Your task to perform on an android device: Open Wikipedia Image 0: 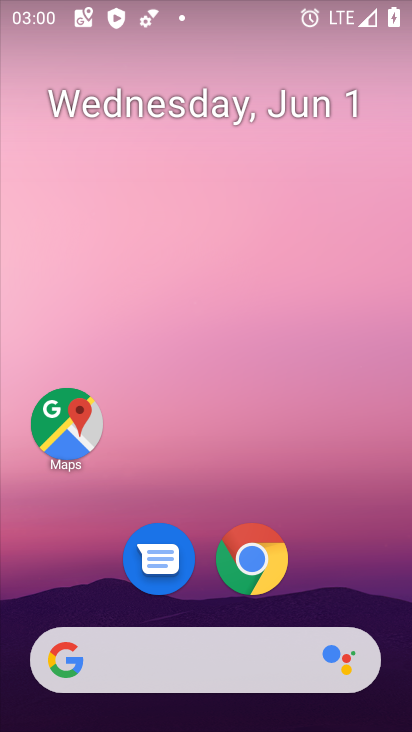
Step 0: press home button
Your task to perform on an android device: Open Wikipedia Image 1: 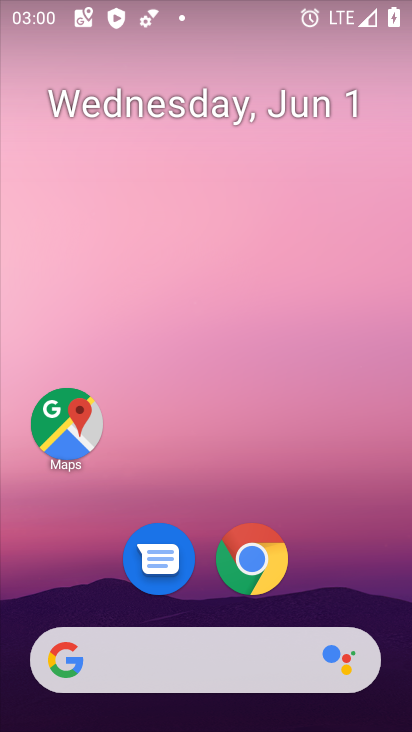
Step 1: click (66, 669)
Your task to perform on an android device: Open Wikipedia Image 2: 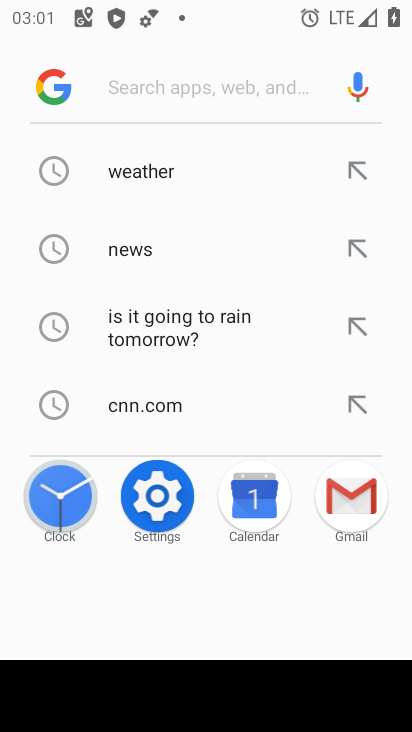
Step 2: type "Wikipedia"
Your task to perform on an android device: Open Wikipedia Image 3: 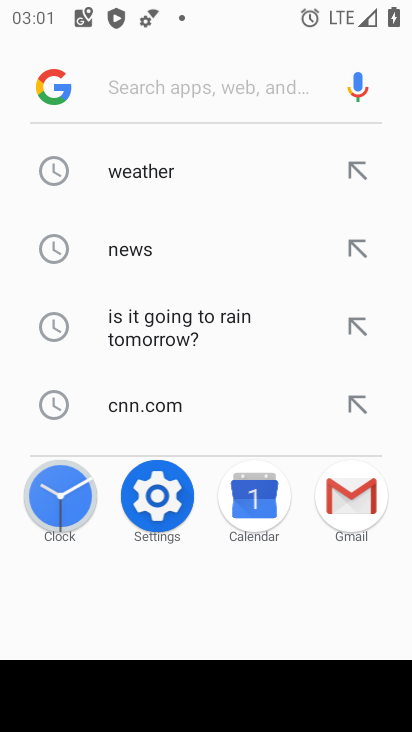
Step 3: click (176, 78)
Your task to perform on an android device: Open Wikipedia Image 4: 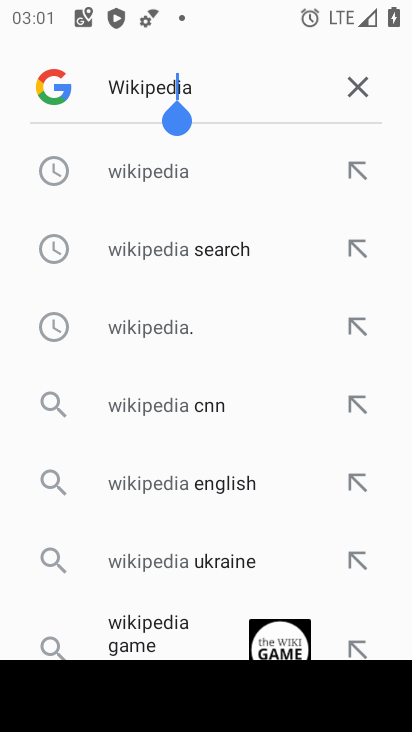
Step 4: click (141, 170)
Your task to perform on an android device: Open Wikipedia Image 5: 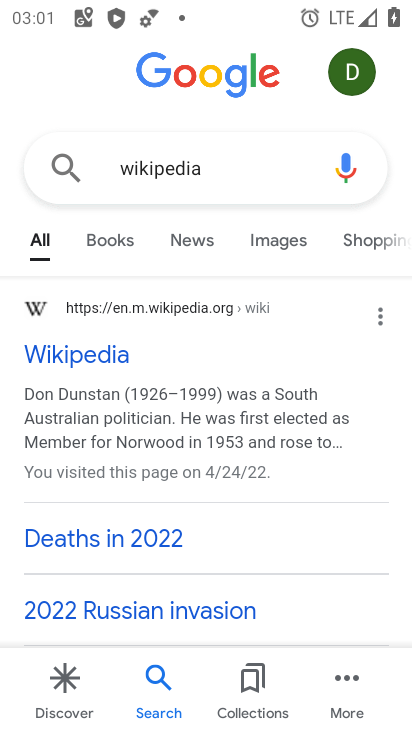
Step 5: click (68, 359)
Your task to perform on an android device: Open Wikipedia Image 6: 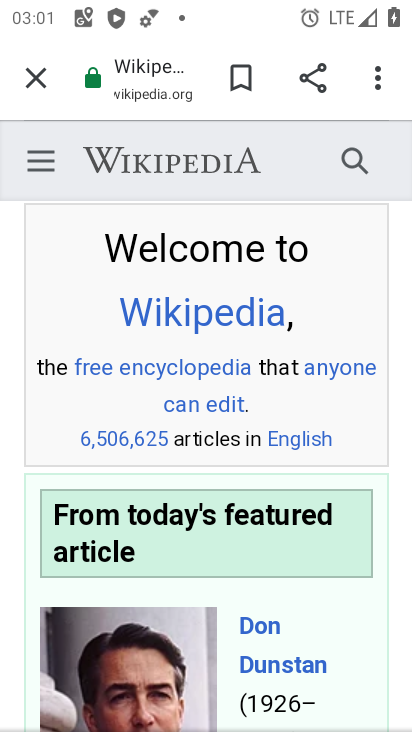
Step 6: task complete